Your task to perform on an android device: Go to Maps Image 0: 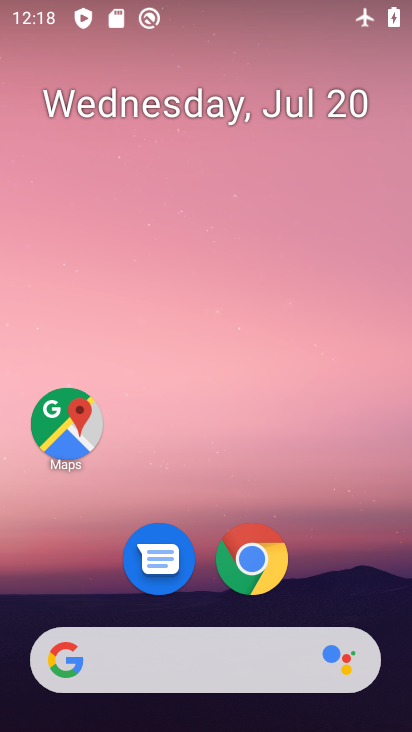
Step 0: drag from (382, 593) to (365, 185)
Your task to perform on an android device: Go to Maps Image 1: 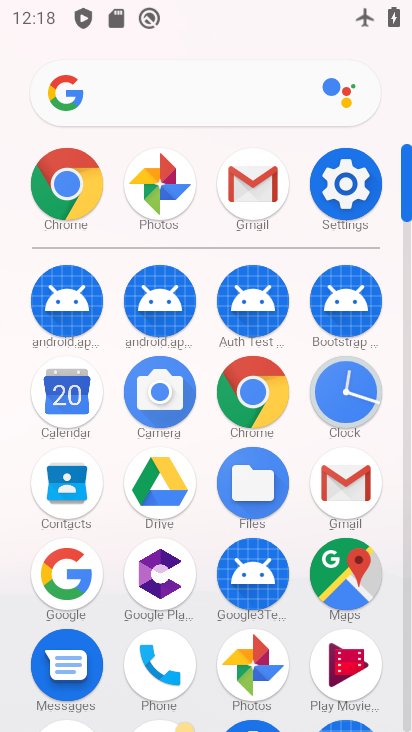
Step 1: click (340, 581)
Your task to perform on an android device: Go to Maps Image 2: 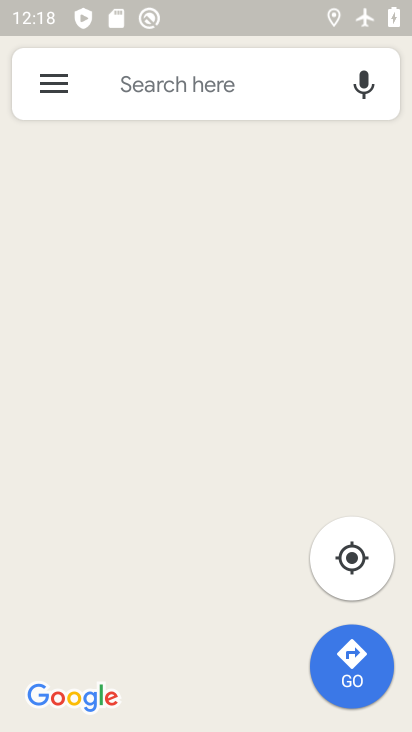
Step 2: task complete